Your task to perform on an android device: toggle pop-ups in chrome Image 0: 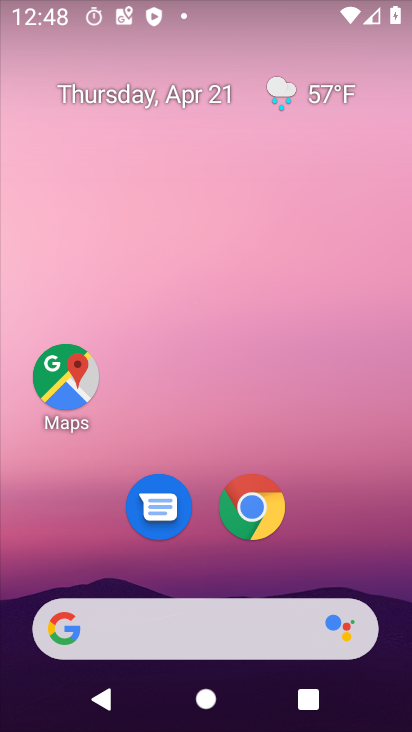
Step 0: drag from (225, 522) to (248, 283)
Your task to perform on an android device: toggle pop-ups in chrome Image 1: 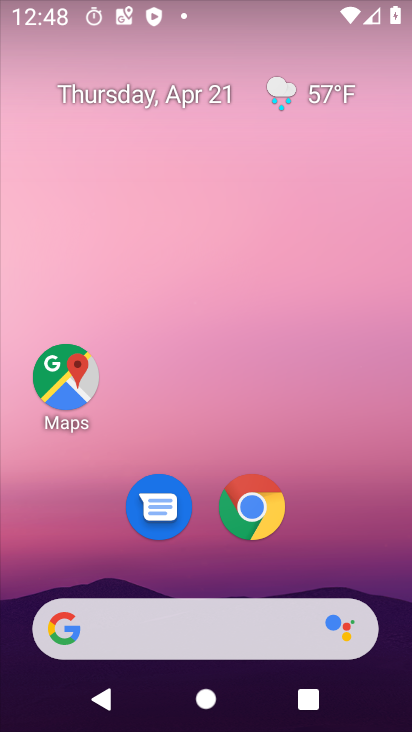
Step 1: click (261, 515)
Your task to perform on an android device: toggle pop-ups in chrome Image 2: 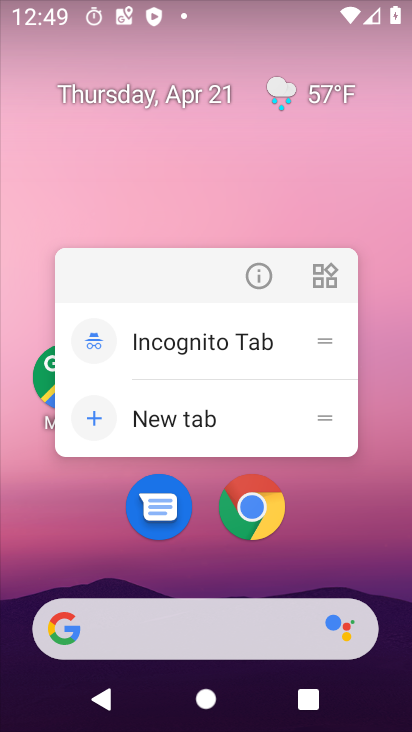
Step 2: click (251, 274)
Your task to perform on an android device: toggle pop-ups in chrome Image 3: 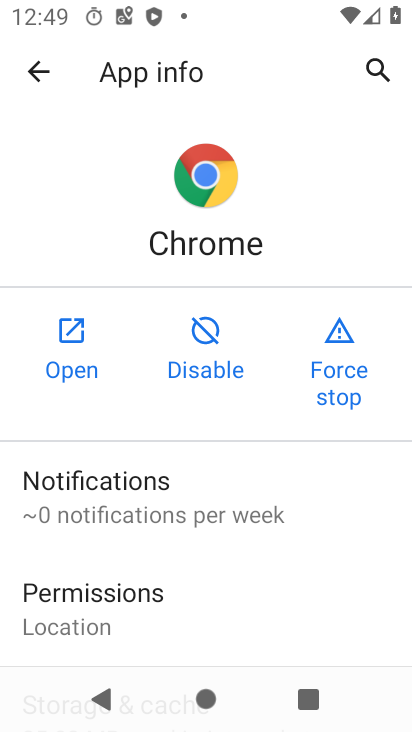
Step 3: click (82, 339)
Your task to perform on an android device: toggle pop-ups in chrome Image 4: 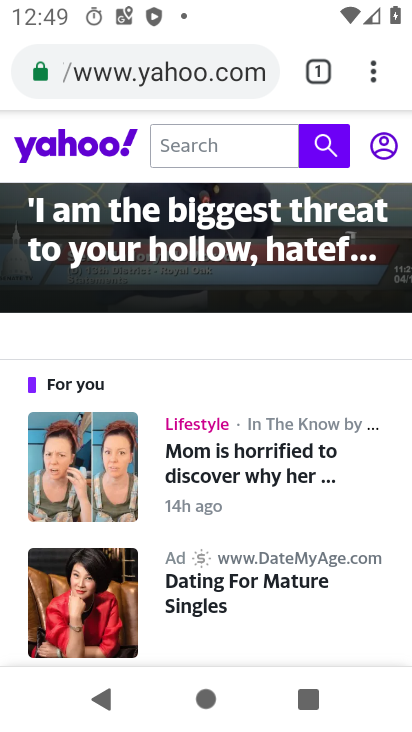
Step 4: drag from (370, 64) to (147, 501)
Your task to perform on an android device: toggle pop-ups in chrome Image 5: 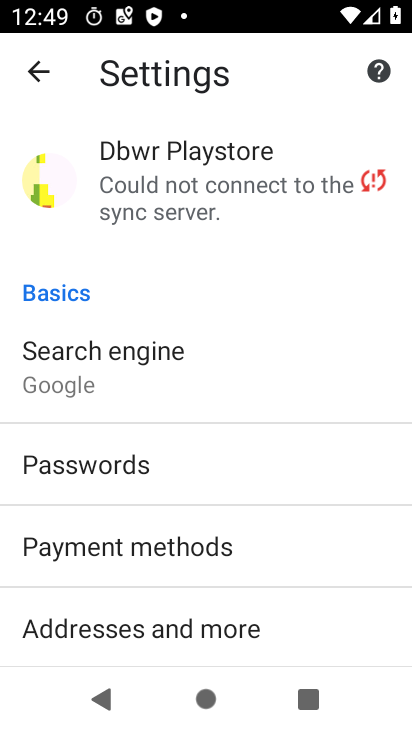
Step 5: drag from (253, 557) to (327, 53)
Your task to perform on an android device: toggle pop-ups in chrome Image 6: 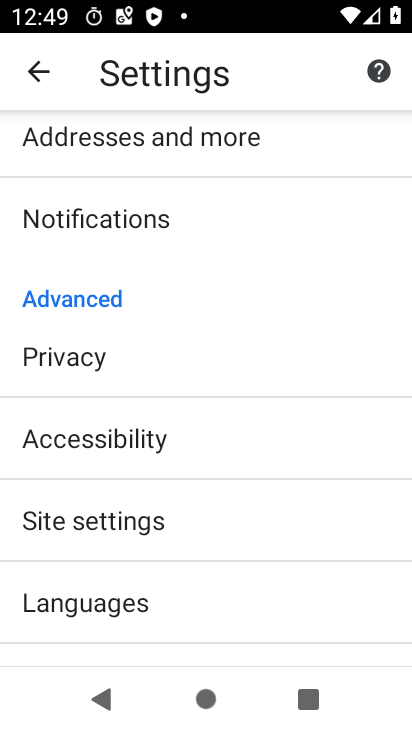
Step 6: click (141, 509)
Your task to perform on an android device: toggle pop-ups in chrome Image 7: 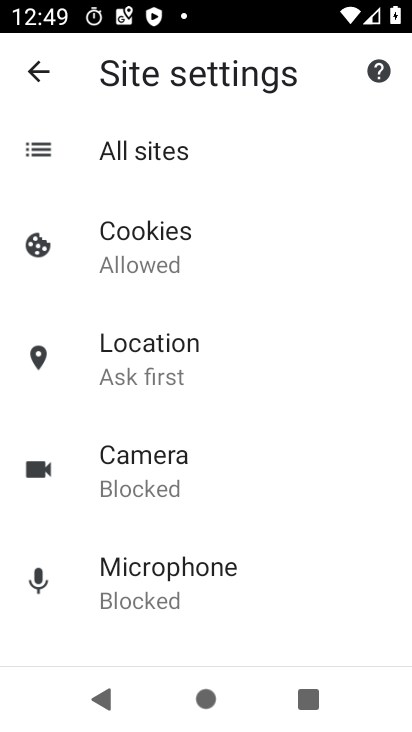
Step 7: drag from (224, 517) to (243, 61)
Your task to perform on an android device: toggle pop-ups in chrome Image 8: 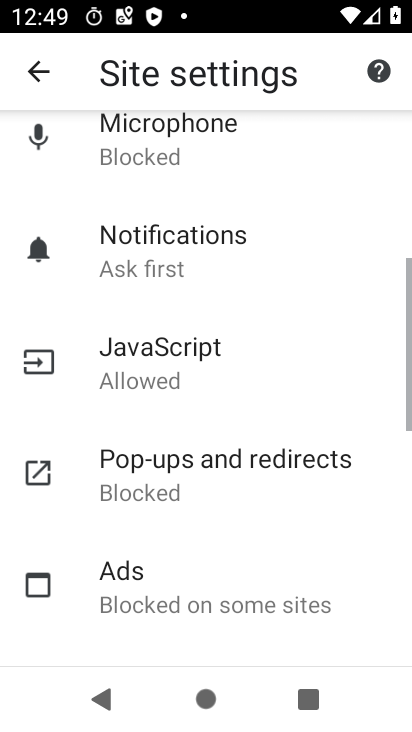
Step 8: click (217, 465)
Your task to perform on an android device: toggle pop-ups in chrome Image 9: 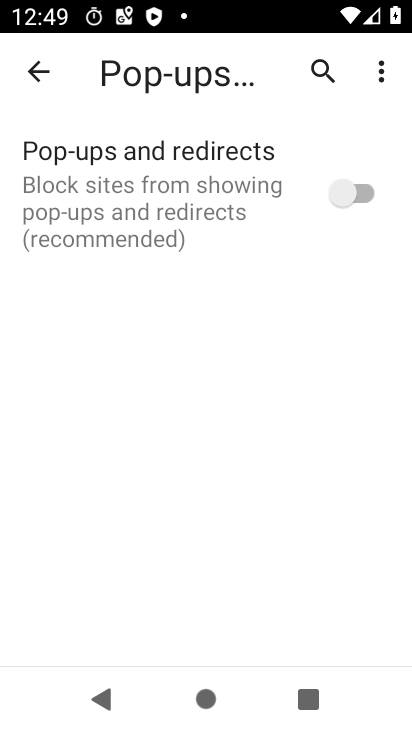
Step 9: click (247, 185)
Your task to perform on an android device: toggle pop-ups in chrome Image 10: 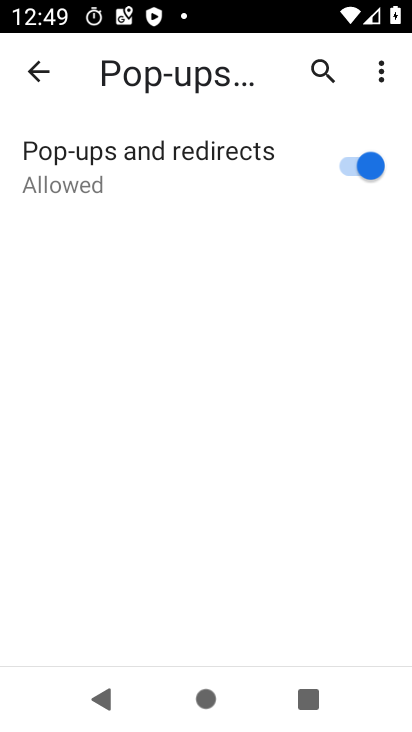
Step 10: task complete